Your task to perform on an android device: change the clock display to digital Image 0: 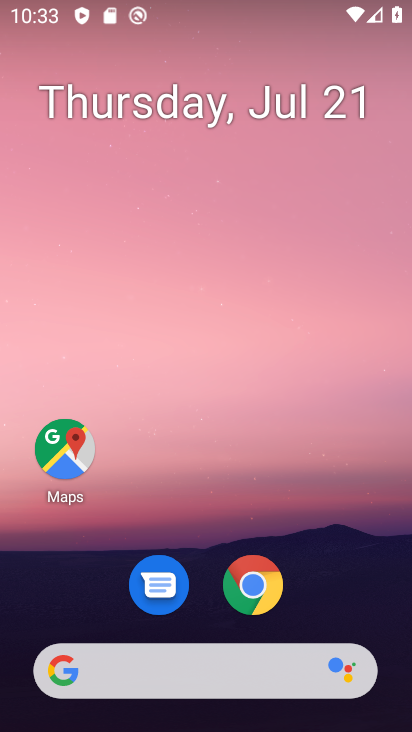
Step 0: drag from (183, 676) to (326, 208)
Your task to perform on an android device: change the clock display to digital Image 1: 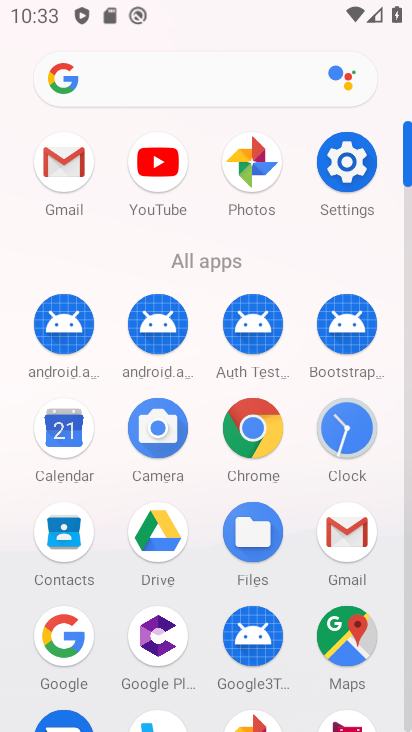
Step 1: click (347, 420)
Your task to perform on an android device: change the clock display to digital Image 2: 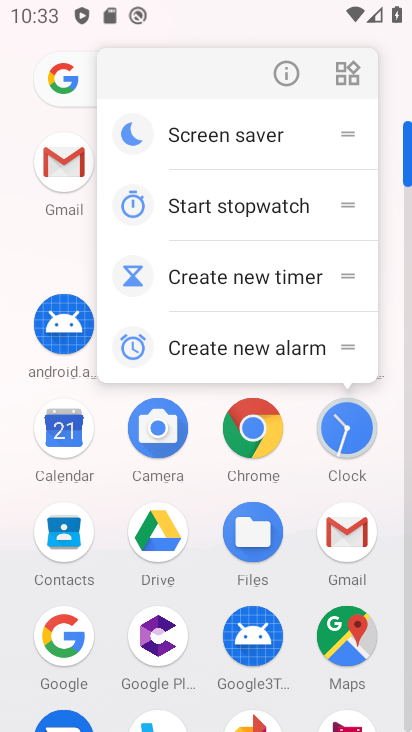
Step 2: click (343, 427)
Your task to perform on an android device: change the clock display to digital Image 3: 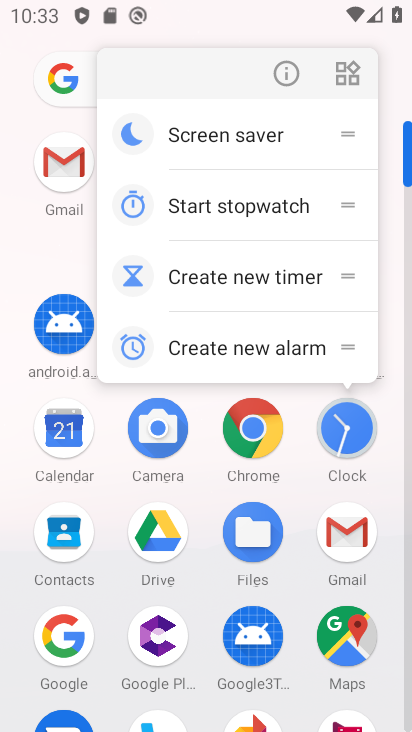
Step 3: click (341, 431)
Your task to perform on an android device: change the clock display to digital Image 4: 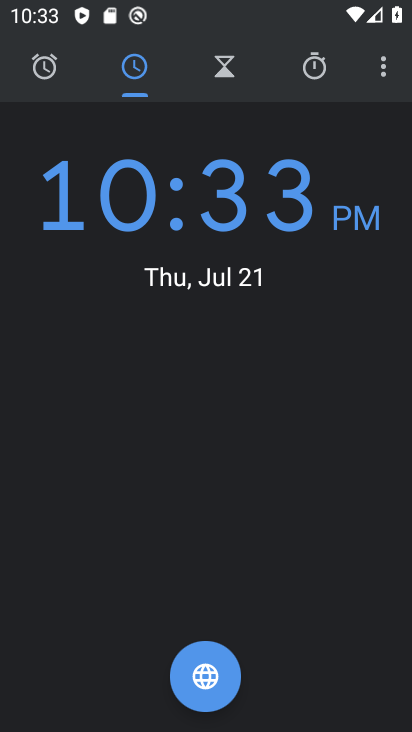
Step 4: click (382, 64)
Your task to perform on an android device: change the clock display to digital Image 5: 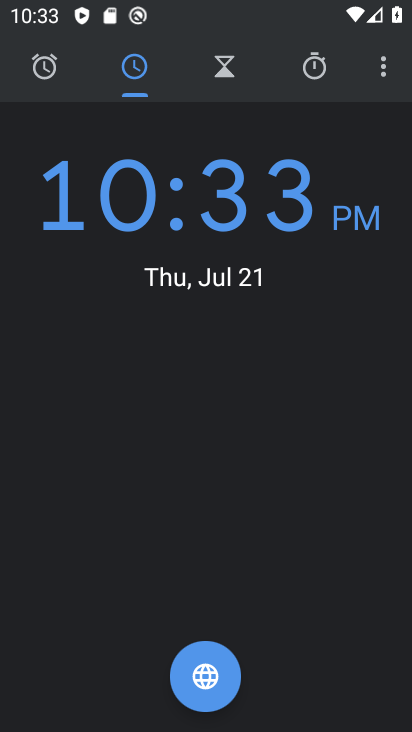
Step 5: click (385, 72)
Your task to perform on an android device: change the clock display to digital Image 6: 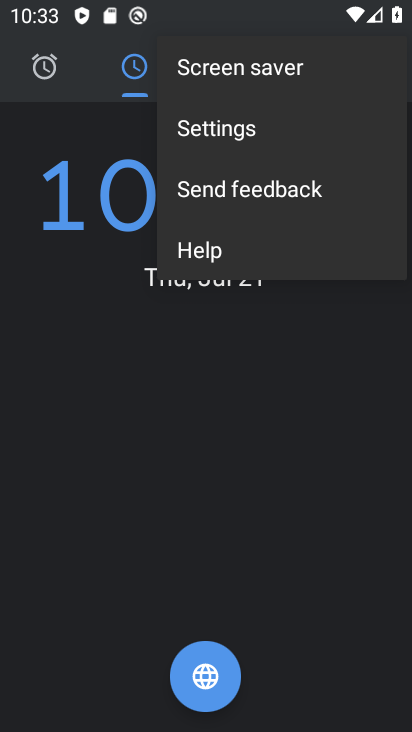
Step 6: click (268, 139)
Your task to perform on an android device: change the clock display to digital Image 7: 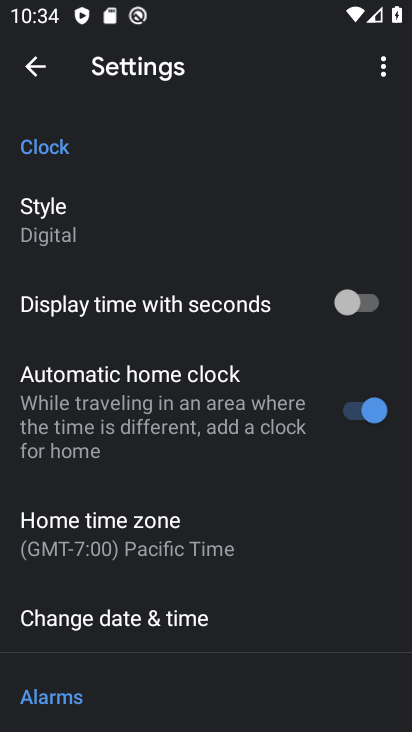
Step 7: task complete